Your task to perform on an android device: toggle data saver in the chrome app Image 0: 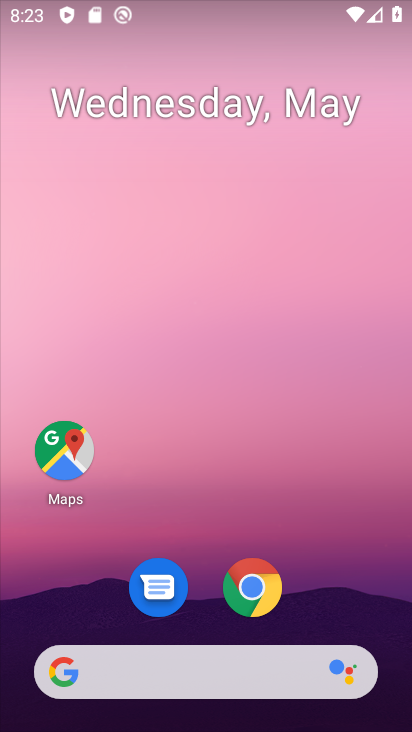
Step 0: click (247, 592)
Your task to perform on an android device: toggle data saver in the chrome app Image 1: 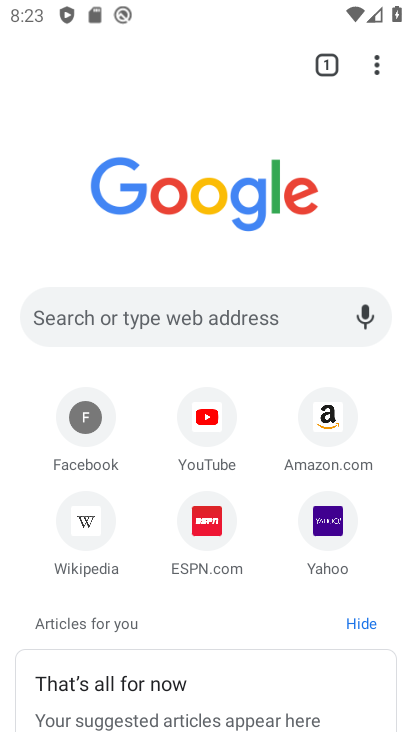
Step 1: click (372, 68)
Your task to perform on an android device: toggle data saver in the chrome app Image 2: 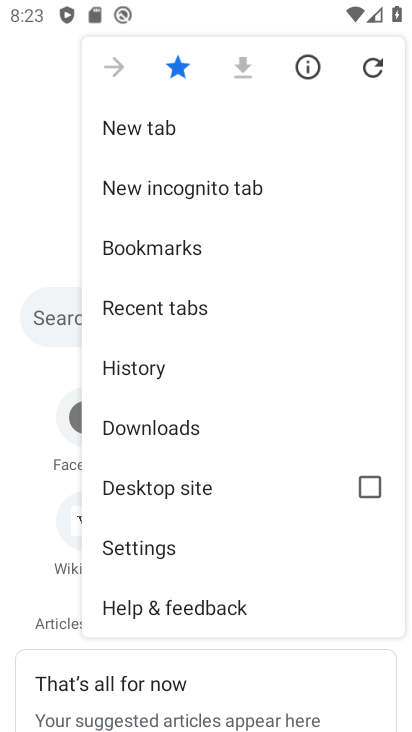
Step 2: click (152, 562)
Your task to perform on an android device: toggle data saver in the chrome app Image 3: 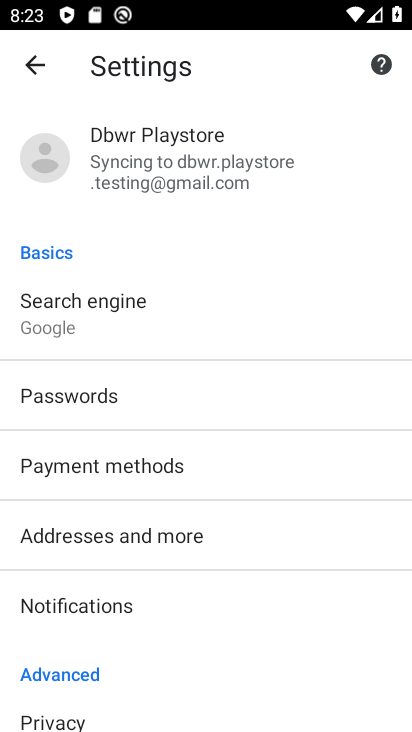
Step 3: drag from (137, 618) to (150, 469)
Your task to perform on an android device: toggle data saver in the chrome app Image 4: 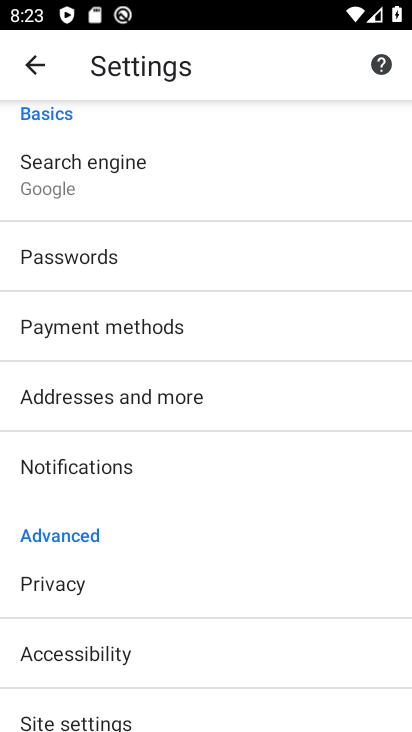
Step 4: drag from (107, 610) to (144, 442)
Your task to perform on an android device: toggle data saver in the chrome app Image 5: 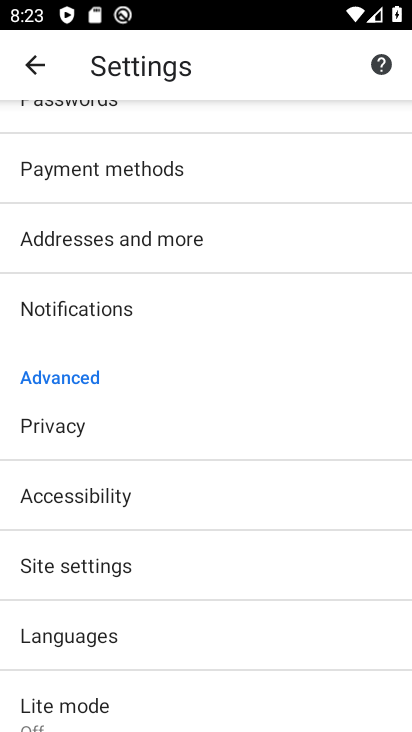
Step 5: click (115, 571)
Your task to perform on an android device: toggle data saver in the chrome app Image 6: 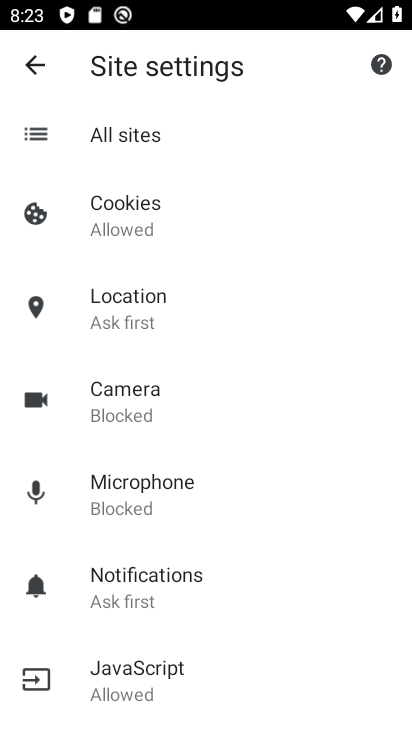
Step 6: click (36, 62)
Your task to perform on an android device: toggle data saver in the chrome app Image 7: 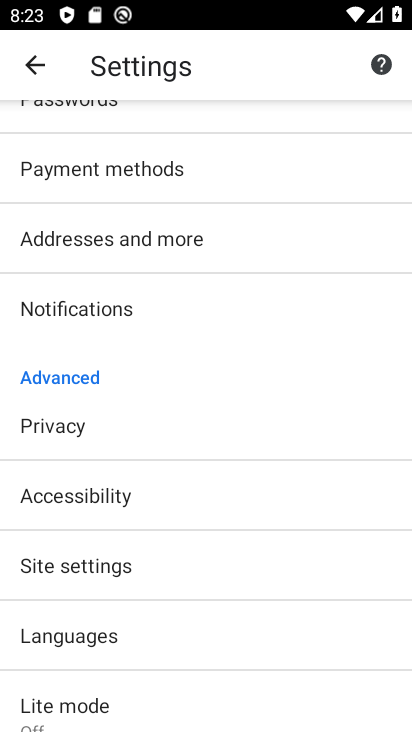
Step 7: click (75, 707)
Your task to perform on an android device: toggle data saver in the chrome app Image 8: 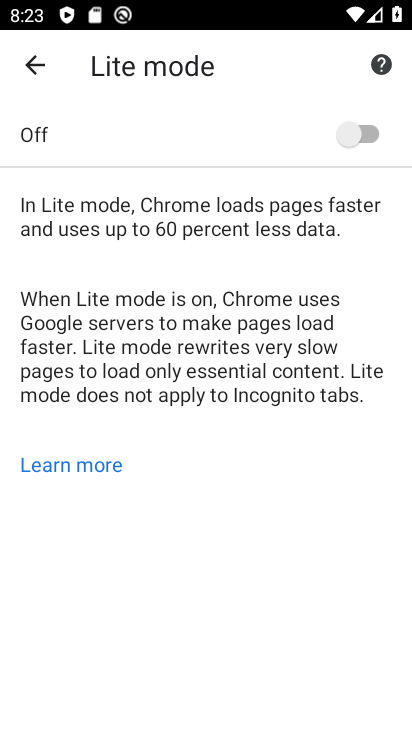
Step 8: click (322, 133)
Your task to perform on an android device: toggle data saver in the chrome app Image 9: 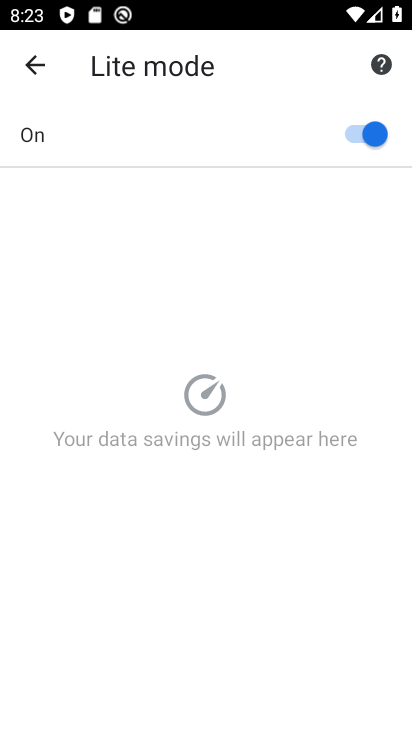
Step 9: task complete